Your task to perform on an android device: check battery use Image 0: 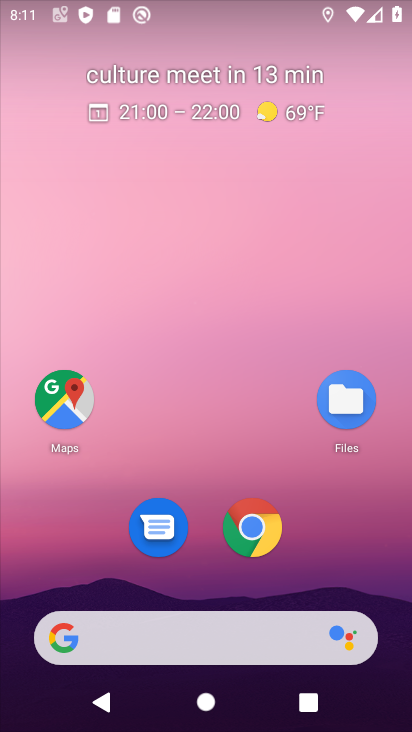
Step 0: drag from (199, 570) to (149, 127)
Your task to perform on an android device: check battery use Image 1: 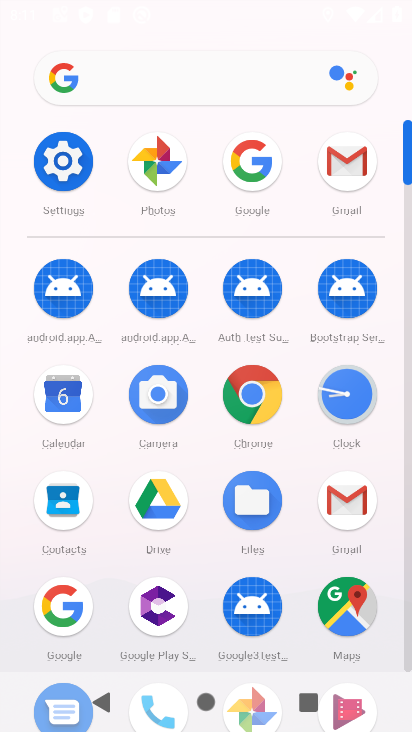
Step 1: click (55, 153)
Your task to perform on an android device: check battery use Image 2: 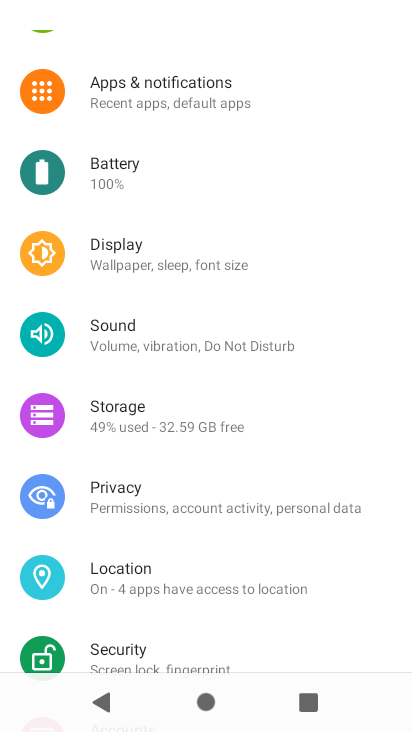
Step 2: drag from (179, 533) to (192, 416)
Your task to perform on an android device: check battery use Image 3: 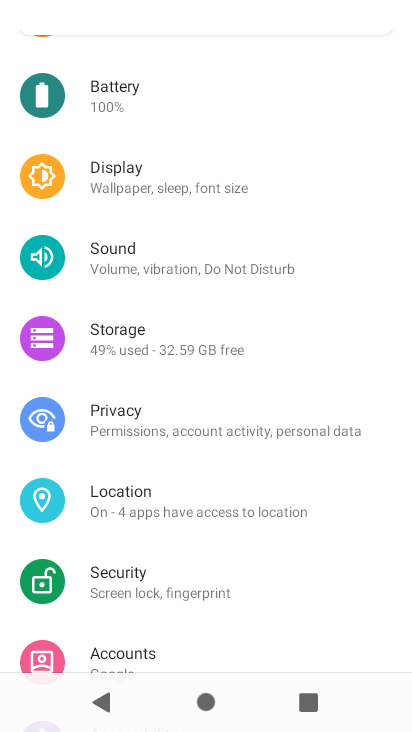
Step 3: click (103, 98)
Your task to perform on an android device: check battery use Image 4: 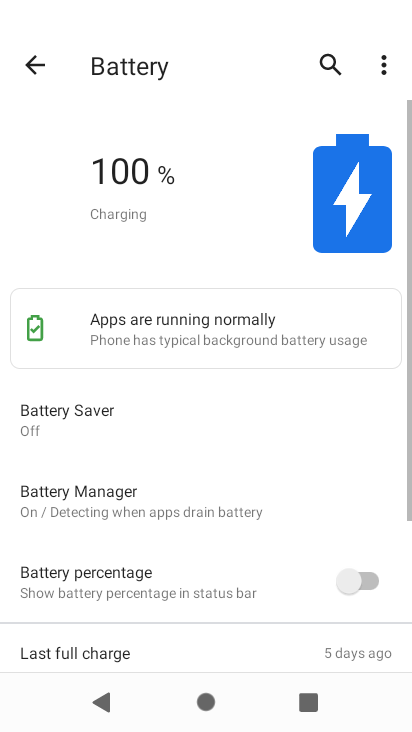
Step 4: click (372, 68)
Your task to perform on an android device: check battery use Image 5: 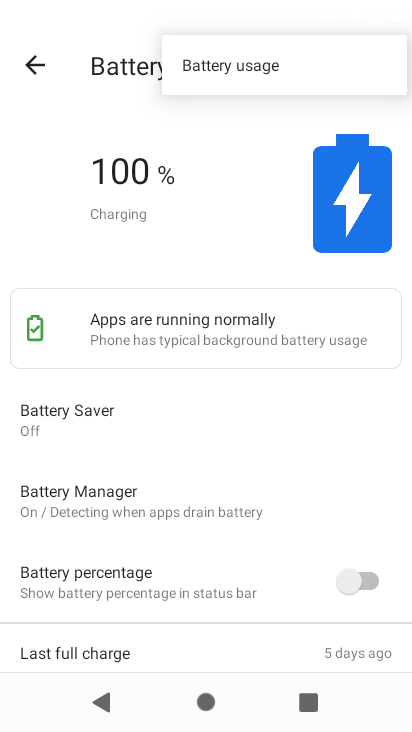
Step 5: click (266, 63)
Your task to perform on an android device: check battery use Image 6: 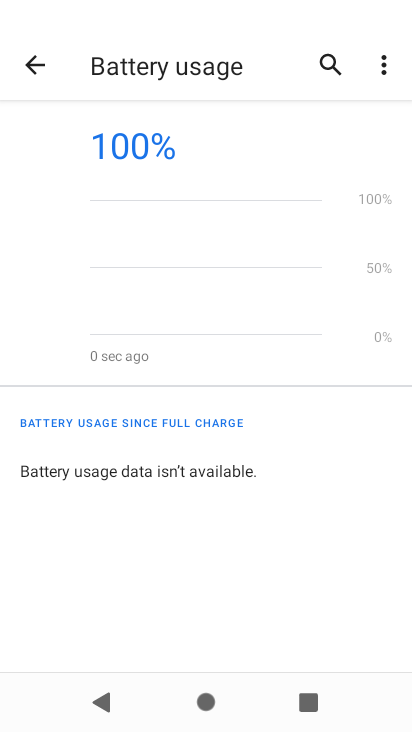
Step 6: task complete